Your task to perform on an android device: find photos in the google photos app Image 0: 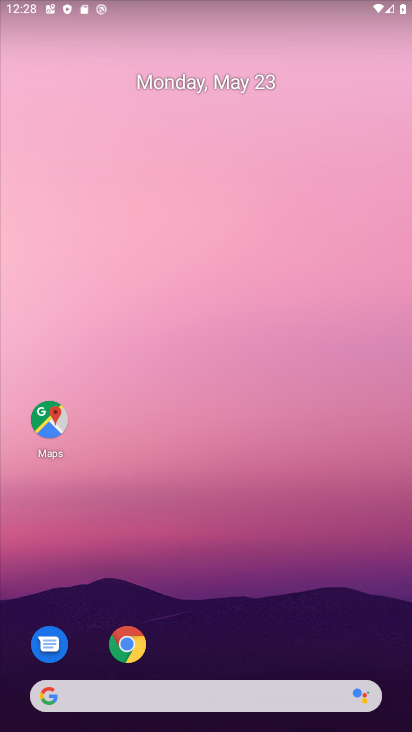
Step 0: drag from (286, 622) to (280, 116)
Your task to perform on an android device: find photos in the google photos app Image 1: 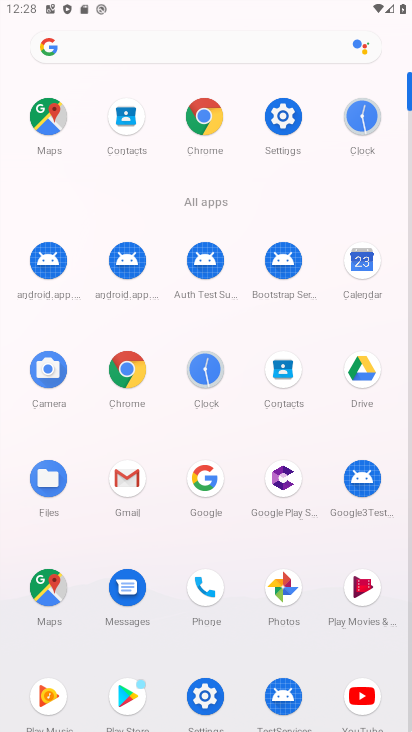
Step 1: click (283, 585)
Your task to perform on an android device: find photos in the google photos app Image 2: 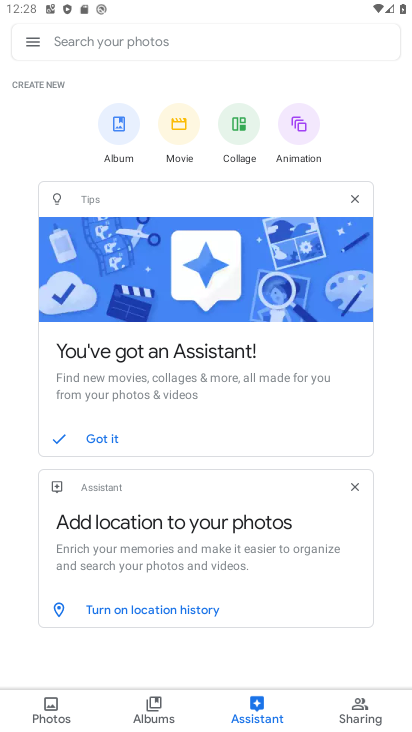
Step 2: click (53, 708)
Your task to perform on an android device: find photos in the google photos app Image 3: 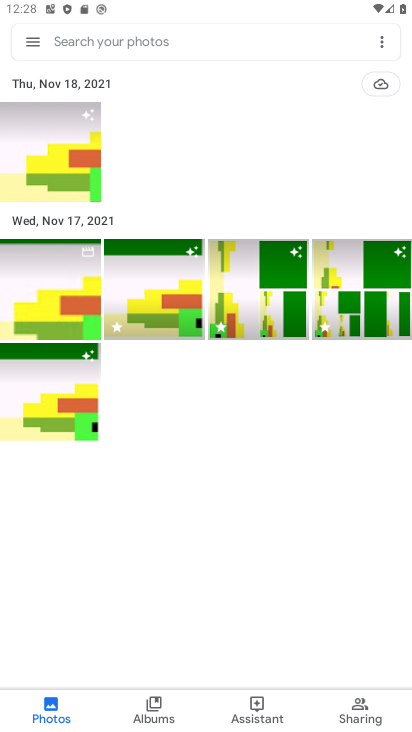
Step 3: task complete